Your task to perform on an android device: Open maps Image 0: 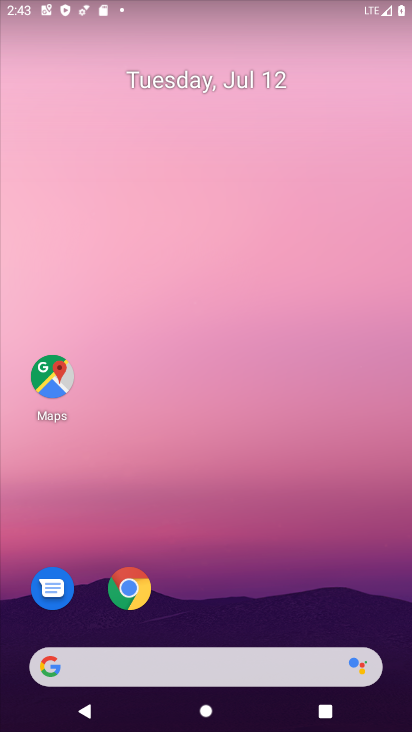
Step 0: click (60, 382)
Your task to perform on an android device: Open maps Image 1: 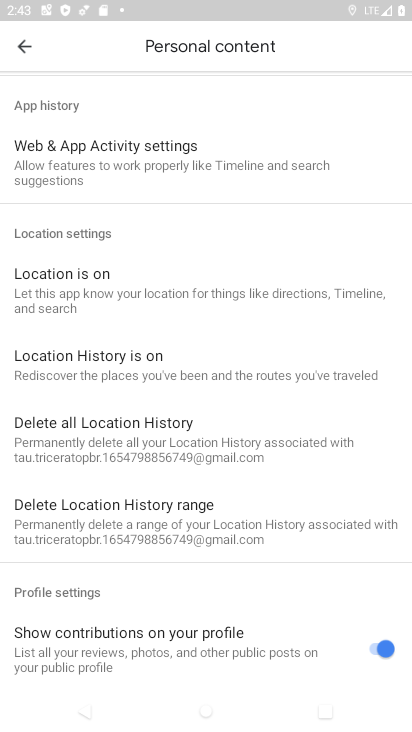
Step 1: task complete